Your task to perform on an android device: What's the weather? Image 0: 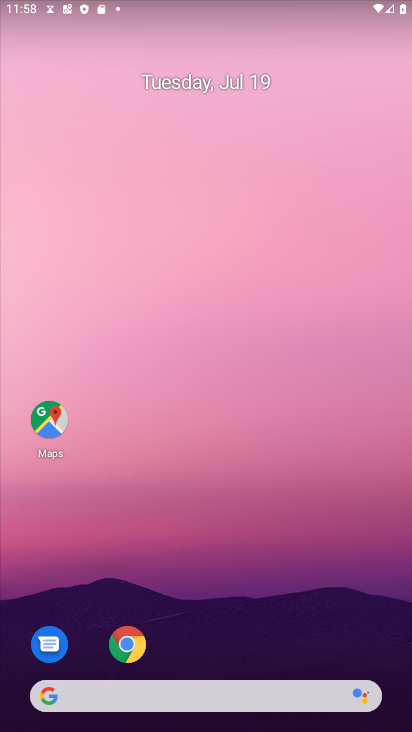
Step 0: click (123, 646)
Your task to perform on an android device: What's the weather? Image 1: 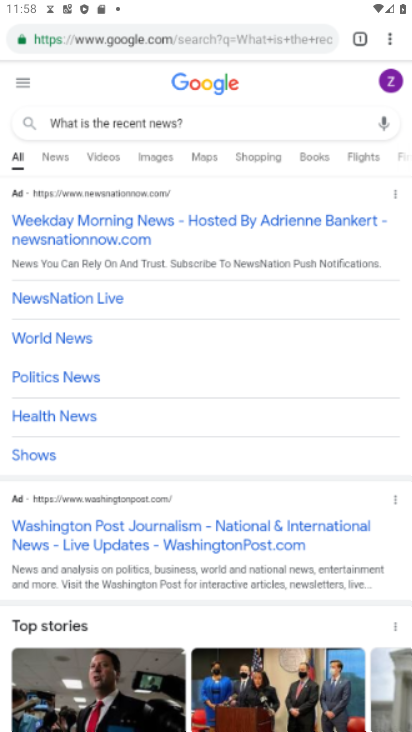
Step 1: click (158, 38)
Your task to perform on an android device: What's the weather? Image 2: 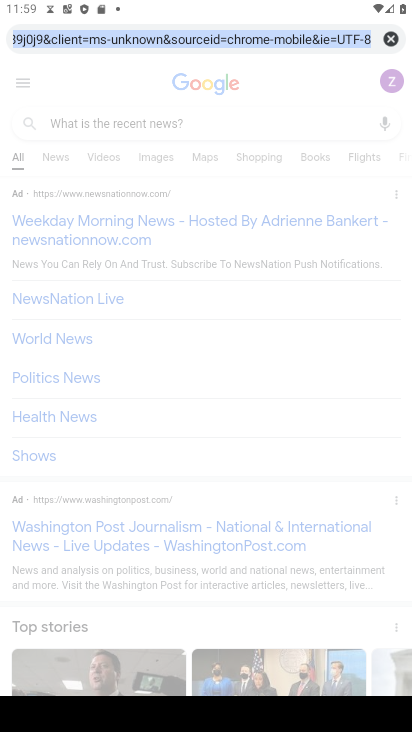
Step 2: type "What's the weather?"
Your task to perform on an android device: What's the weather? Image 3: 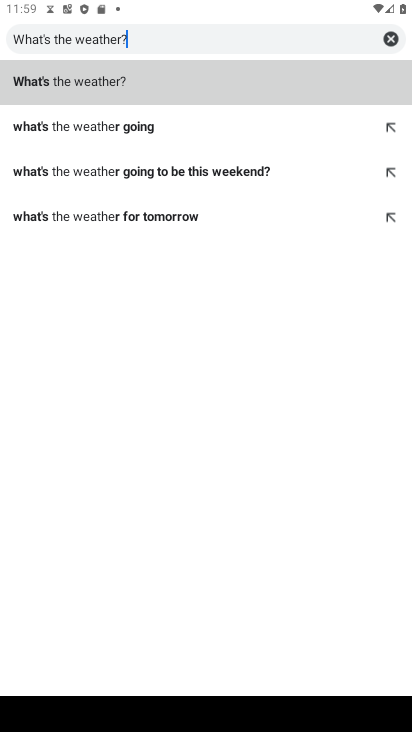
Step 3: type ""
Your task to perform on an android device: What's the weather? Image 4: 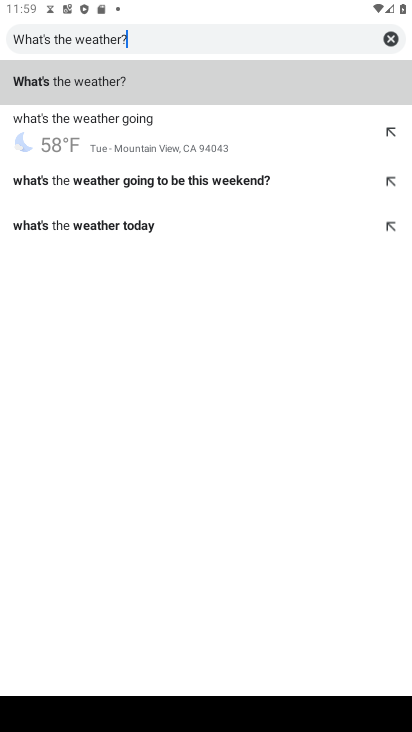
Step 4: click (134, 67)
Your task to perform on an android device: What's the weather? Image 5: 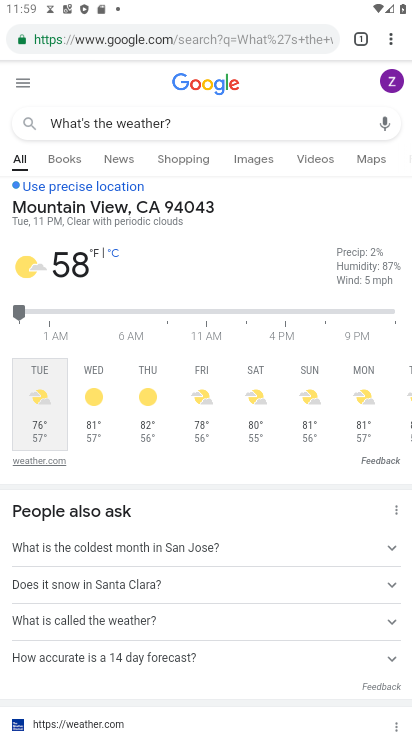
Step 5: task complete